Your task to perform on an android device: turn off translation in the chrome app Image 0: 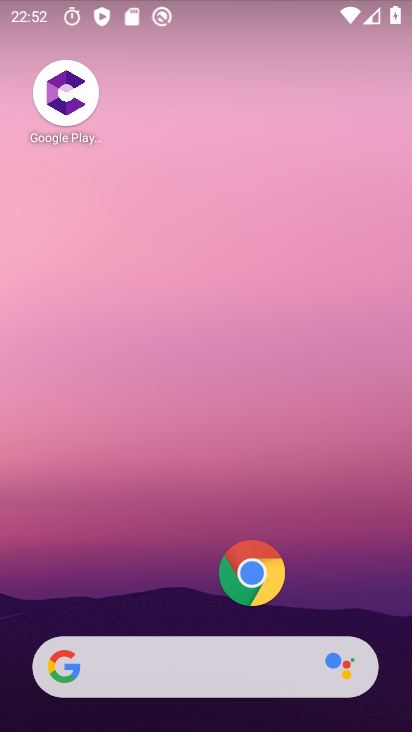
Step 0: click (252, 572)
Your task to perform on an android device: turn off translation in the chrome app Image 1: 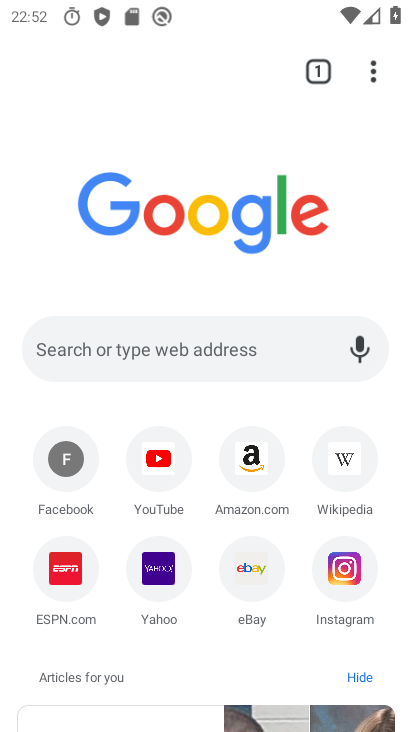
Step 1: click (361, 79)
Your task to perform on an android device: turn off translation in the chrome app Image 2: 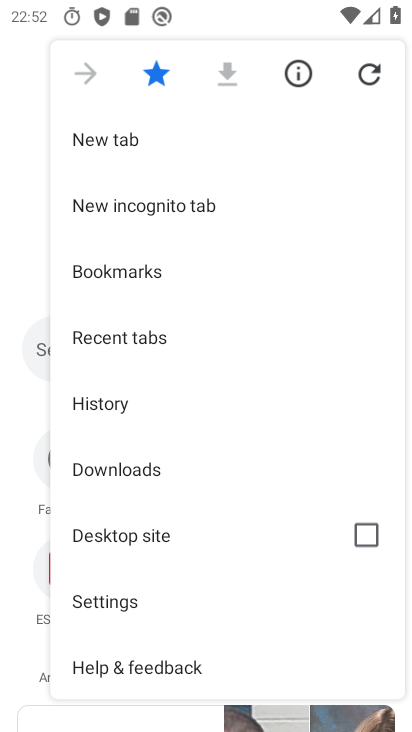
Step 2: drag from (256, 556) to (253, 289)
Your task to perform on an android device: turn off translation in the chrome app Image 3: 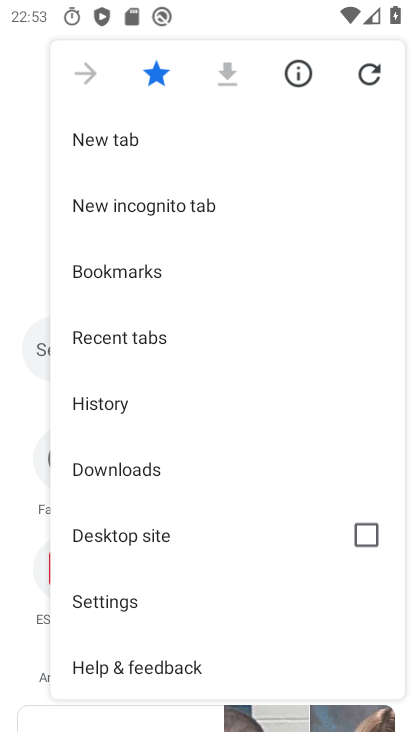
Step 3: click (136, 598)
Your task to perform on an android device: turn off translation in the chrome app Image 4: 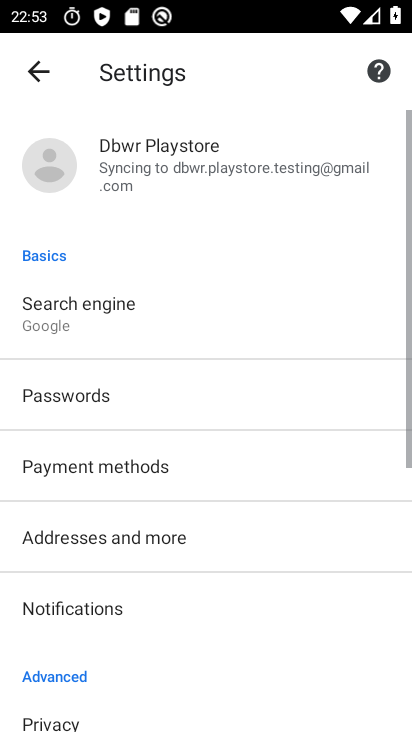
Step 4: drag from (256, 585) to (208, 130)
Your task to perform on an android device: turn off translation in the chrome app Image 5: 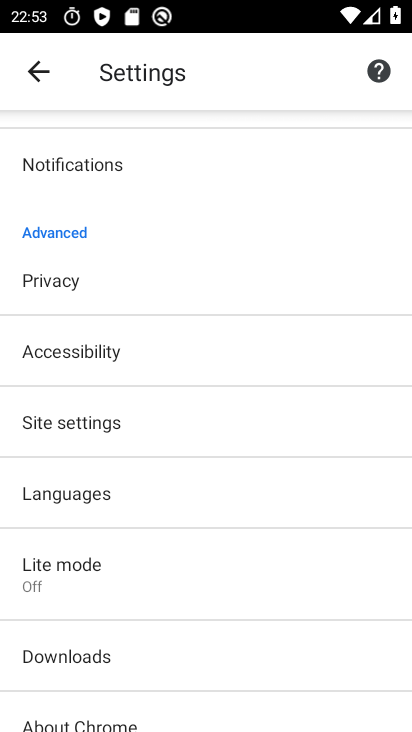
Step 5: click (78, 502)
Your task to perform on an android device: turn off translation in the chrome app Image 6: 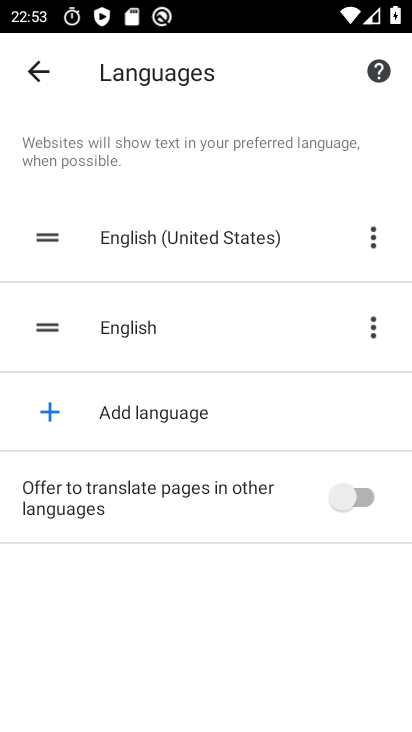
Step 6: task complete